Your task to perform on an android device: toggle translation in the chrome app Image 0: 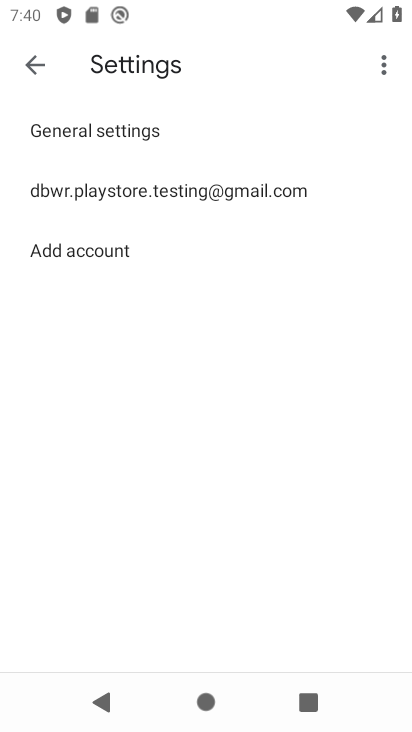
Step 0: press home button
Your task to perform on an android device: toggle translation in the chrome app Image 1: 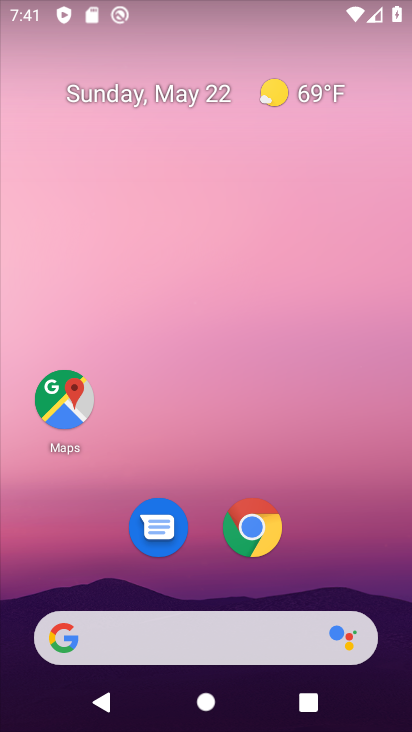
Step 1: click (250, 523)
Your task to perform on an android device: toggle translation in the chrome app Image 2: 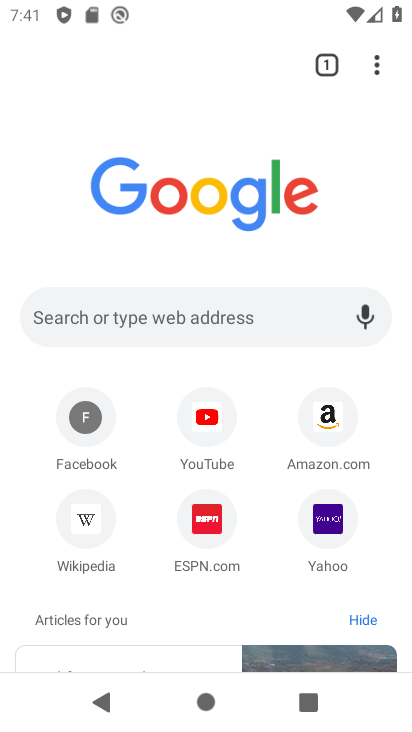
Step 2: click (370, 60)
Your task to perform on an android device: toggle translation in the chrome app Image 3: 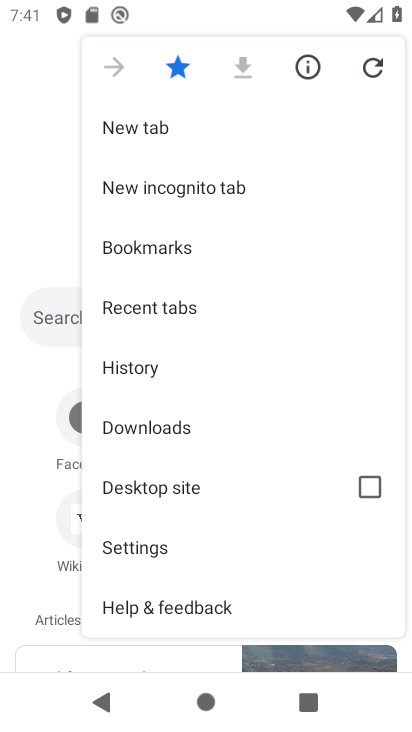
Step 3: click (172, 547)
Your task to perform on an android device: toggle translation in the chrome app Image 4: 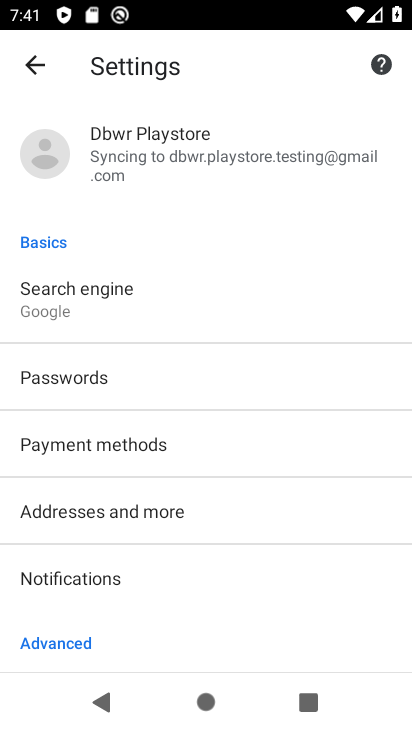
Step 4: drag from (215, 608) to (257, 117)
Your task to perform on an android device: toggle translation in the chrome app Image 5: 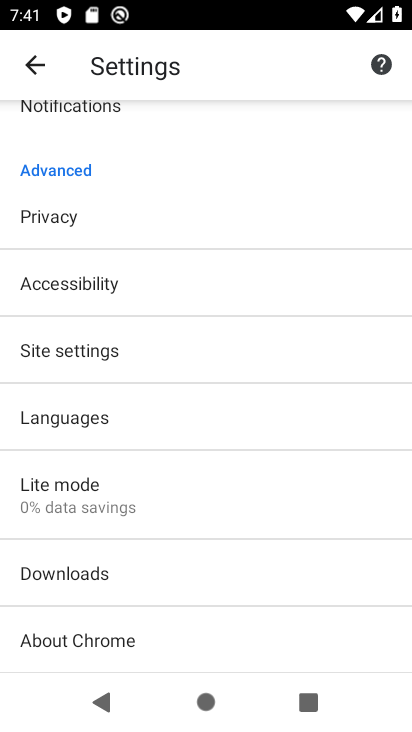
Step 5: click (131, 416)
Your task to perform on an android device: toggle translation in the chrome app Image 6: 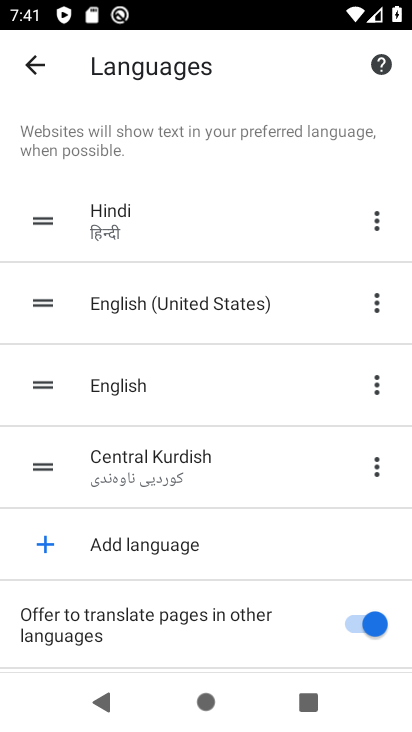
Step 6: task complete